Your task to perform on an android device: empty trash in the gmail app Image 0: 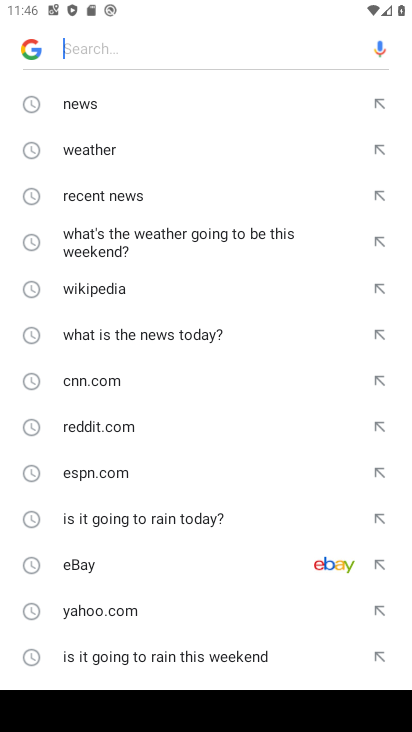
Step 0: press back button
Your task to perform on an android device: empty trash in the gmail app Image 1: 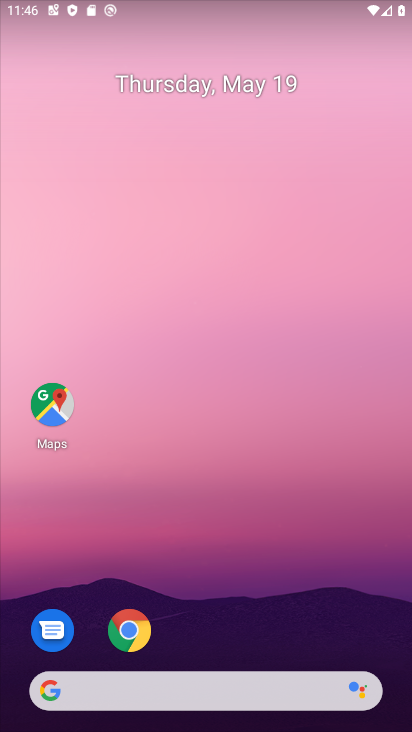
Step 1: drag from (232, 609) to (203, 93)
Your task to perform on an android device: empty trash in the gmail app Image 2: 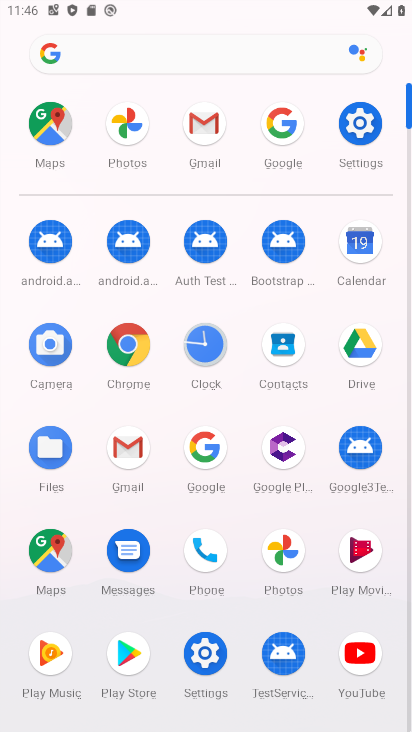
Step 2: click (198, 123)
Your task to perform on an android device: empty trash in the gmail app Image 3: 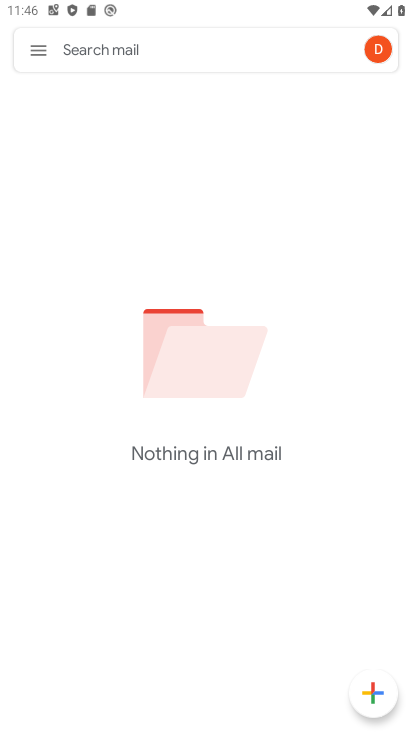
Step 3: click (31, 47)
Your task to perform on an android device: empty trash in the gmail app Image 4: 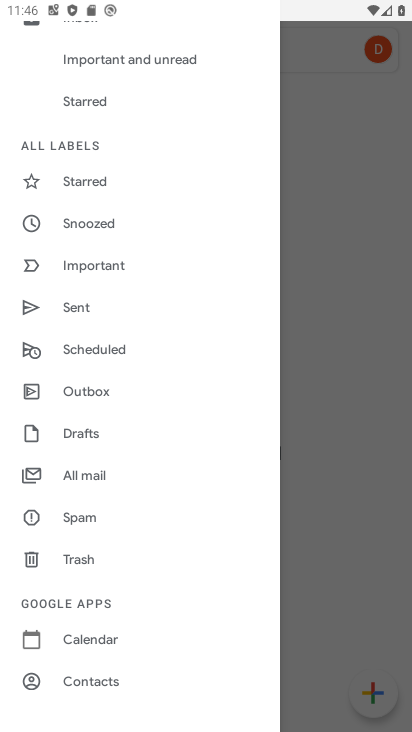
Step 4: click (68, 560)
Your task to perform on an android device: empty trash in the gmail app Image 5: 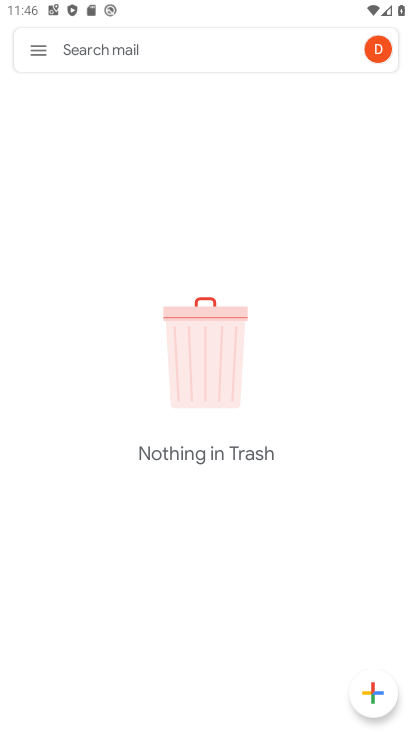
Step 5: task complete